Your task to perform on an android device: Open Chrome and go to the settings page Image 0: 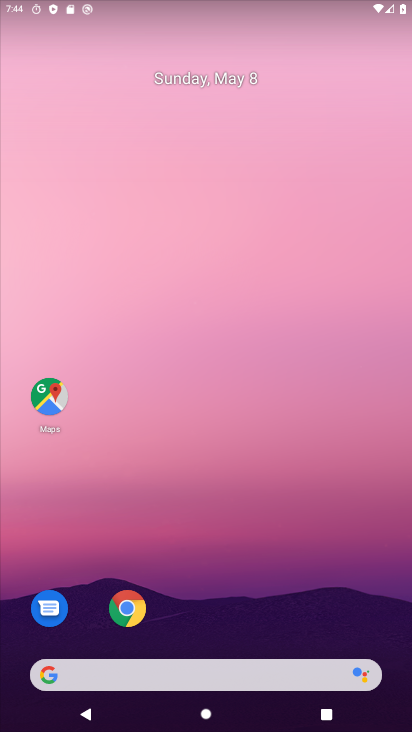
Step 0: click (130, 611)
Your task to perform on an android device: Open Chrome and go to the settings page Image 1: 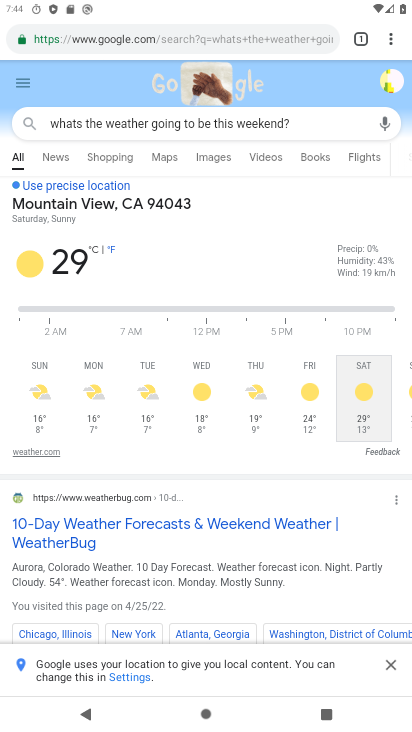
Step 1: task complete